Your task to perform on an android device: toggle location history Image 0: 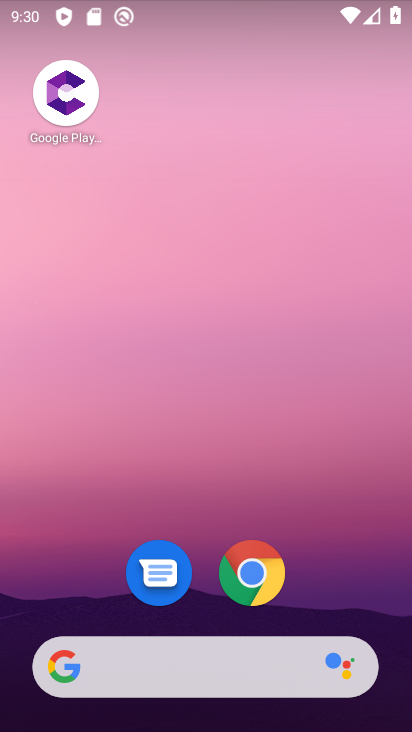
Step 0: drag from (355, 565) to (408, 195)
Your task to perform on an android device: toggle location history Image 1: 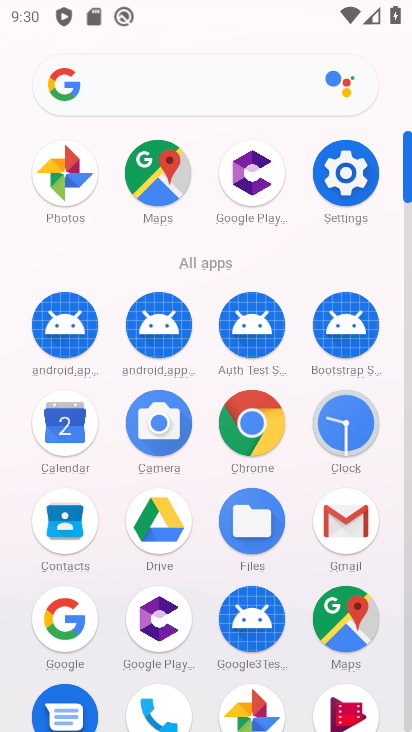
Step 1: click (344, 224)
Your task to perform on an android device: toggle location history Image 2: 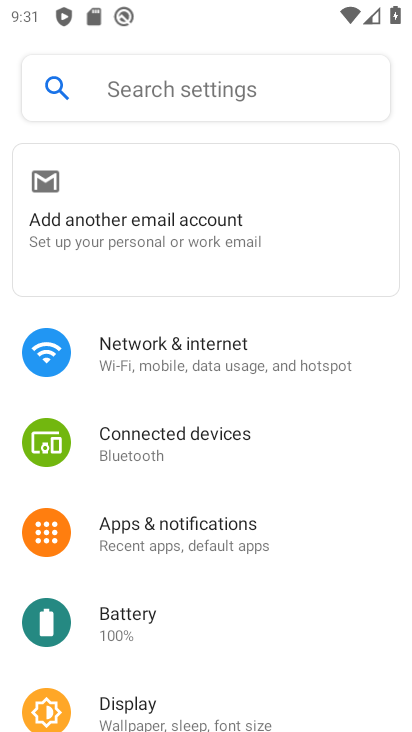
Step 2: drag from (184, 718) to (169, 238)
Your task to perform on an android device: toggle location history Image 3: 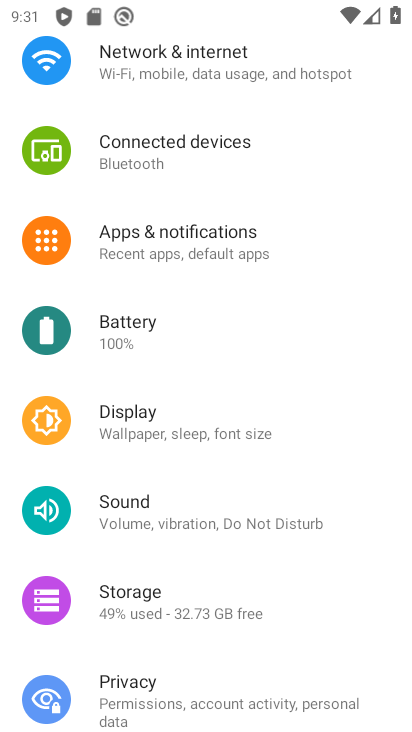
Step 3: drag from (165, 704) to (181, 222)
Your task to perform on an android device: toggle location history Image 4: 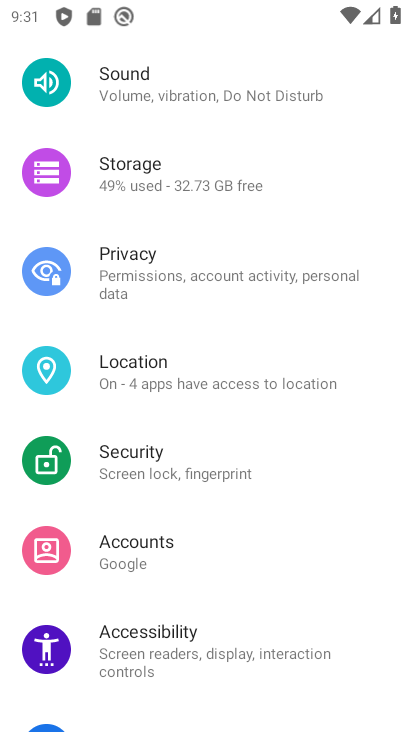
Step 4: click (137, 364)
Your task to perform on an android device: toggle location history Image 5: 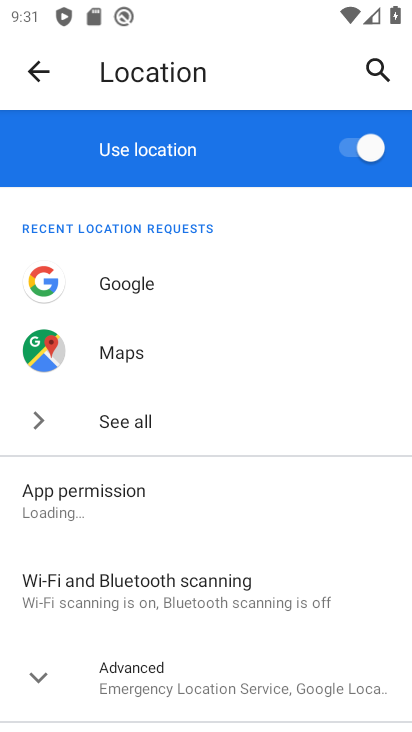
Step 5: click (197, 436)
Your task to perform on an android device: toggle location history Image 6: 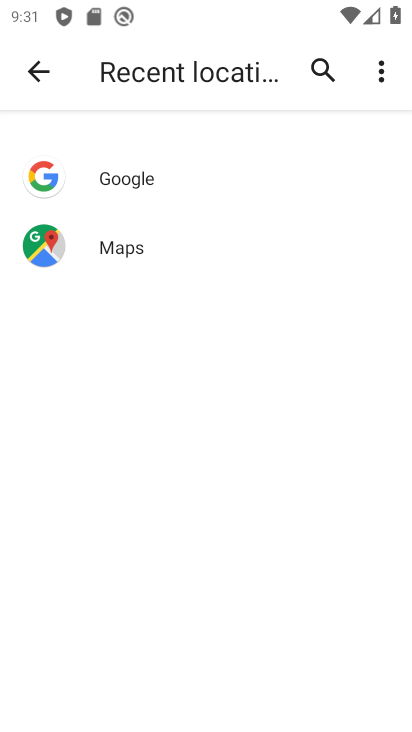
Step 6: click (41, 69)
Your task to perform on an android device: toggle location history Image 7: 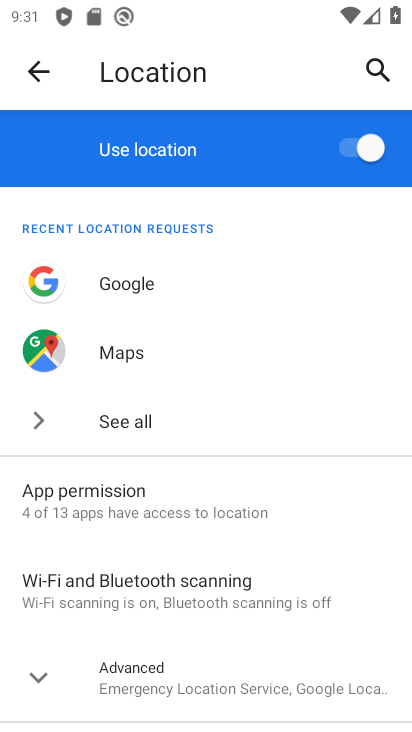
Step 7: click (157, 671)
Your task to perform on an android device: toggle location history Image 8: 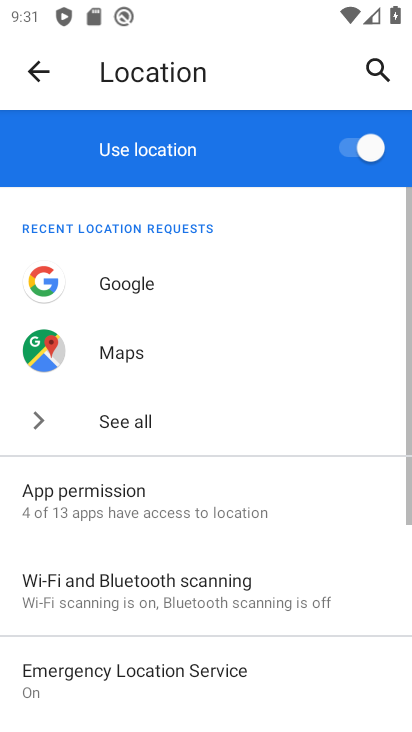
Step 8: click (157, 671)
Your task to perform on an android device: toggle location history Image 9: 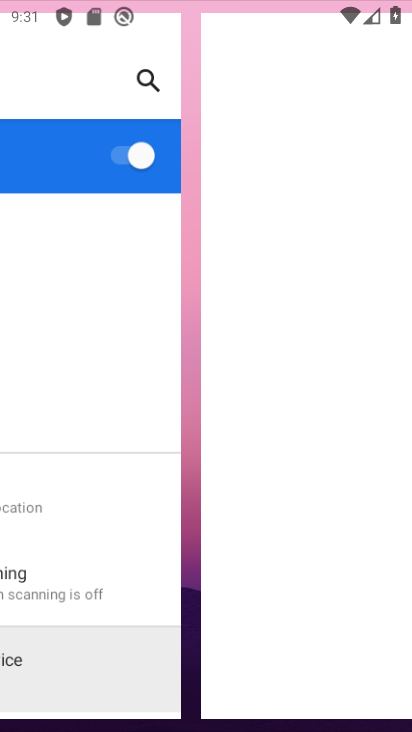
Step 9: drag from (157, 671) to (154, 379)
Your task to perform on an android device: toggle location history Image 10: 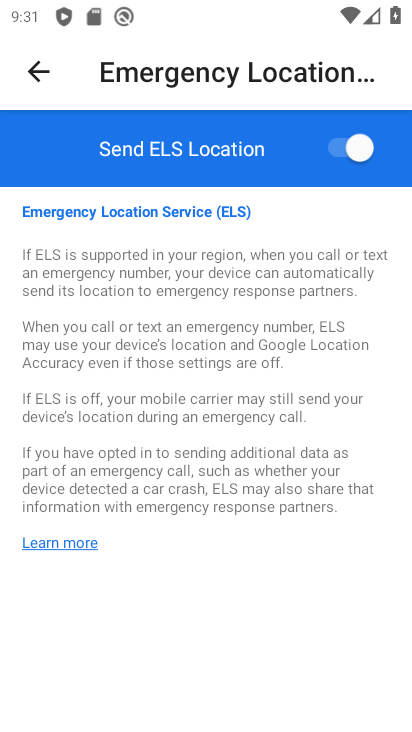
Step 10: click (32, 73)
Your task to perform on an android device: toggle location history Image 11: 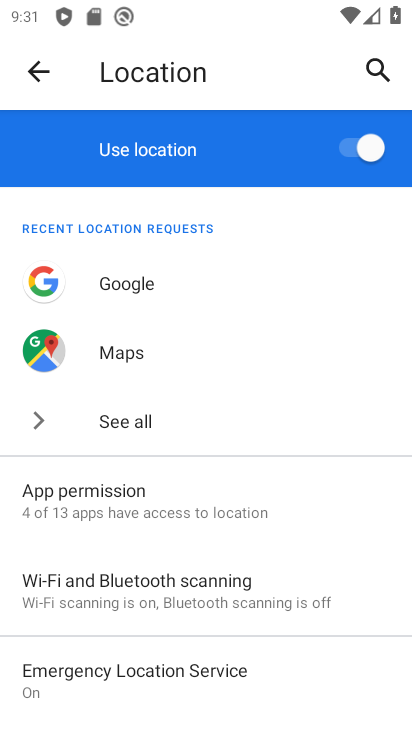
Step 11: drag from (171, 584) to (270, 26)
Your task to perform on an android device: toggle location history Image 12: 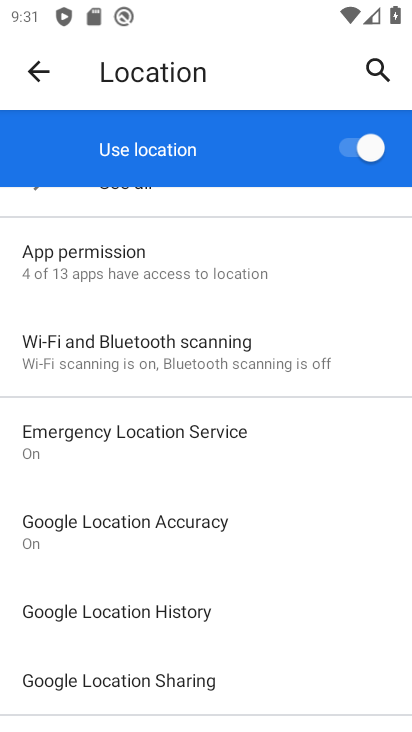
Step 12: click (154, 607)
Your task to perform on an android device: toggle location history Image 13: 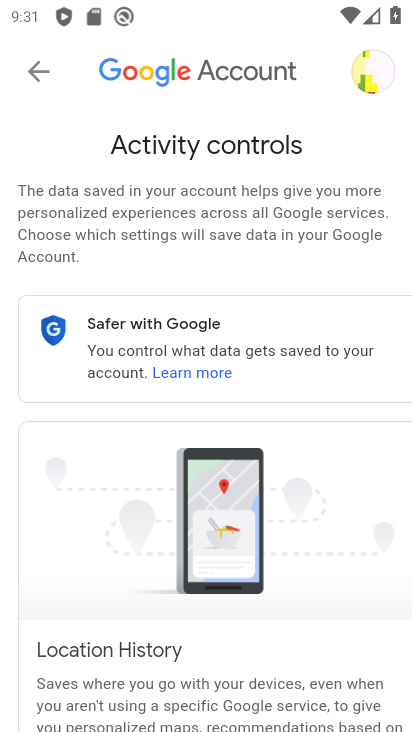
Step 13: drag from (149, 644) to (134, 207)
Your task to perform on an android device: toggle location history Image 14: 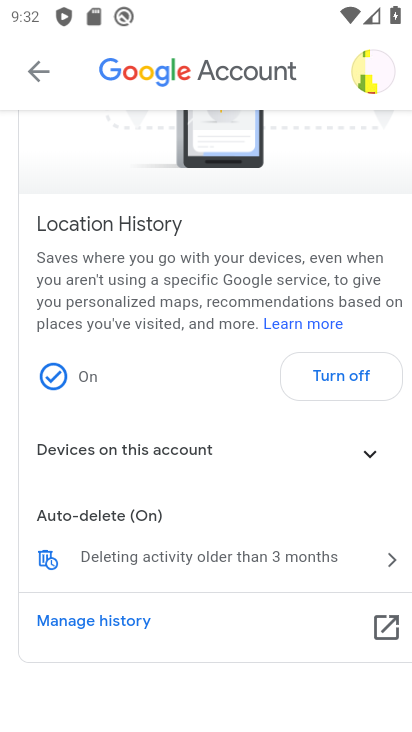
Step 14: click (343, 368)
Your task to perform on an android device: toggle location history Image 15: 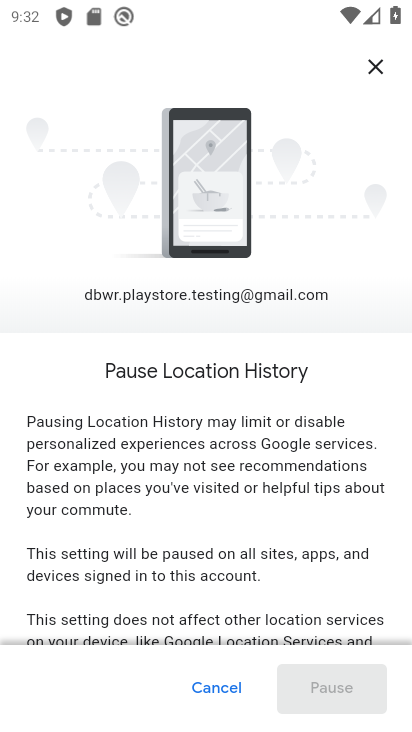
Step 15: drag from (264, 623) to (267, 120)
Your task to perform on an android device: toggle location history Image 16: 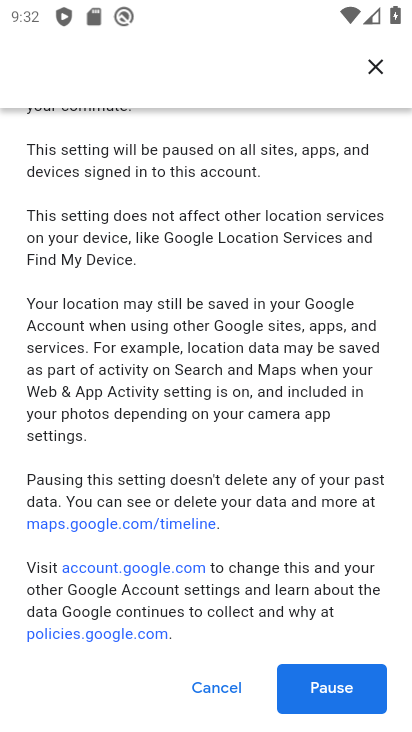
Step 16: click (314, 701)
Your task to perform on an android device: toggle location history Image 17: 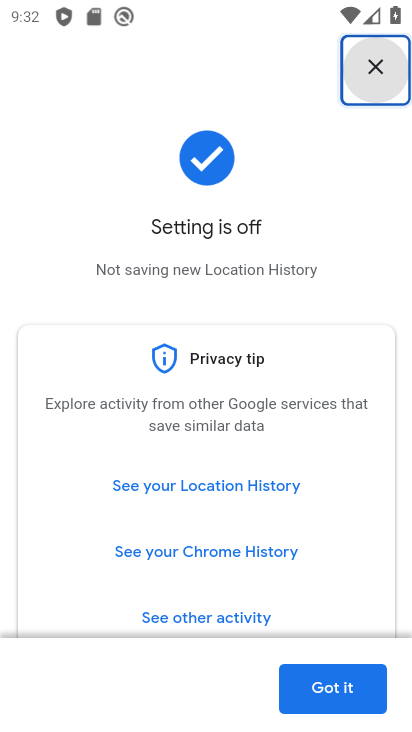
Step 17: click (314, 701)
Your task to perform on an android device: toggle location history Image 18: 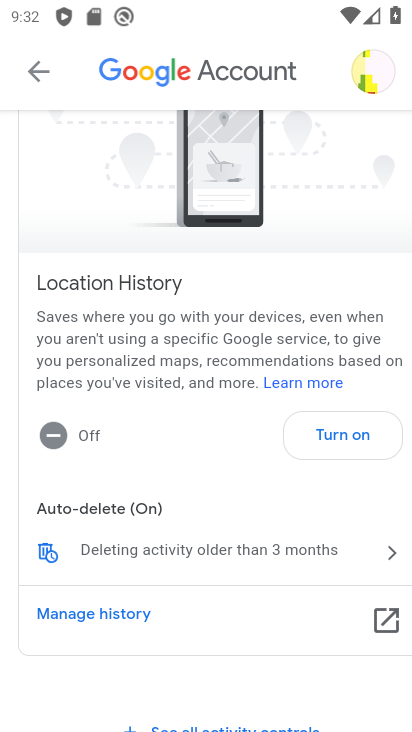
Step 18: task complete